Your task to perform on an android device: open app "Paramount+ | Peak Streaming" (install if not already installed) Image 0: 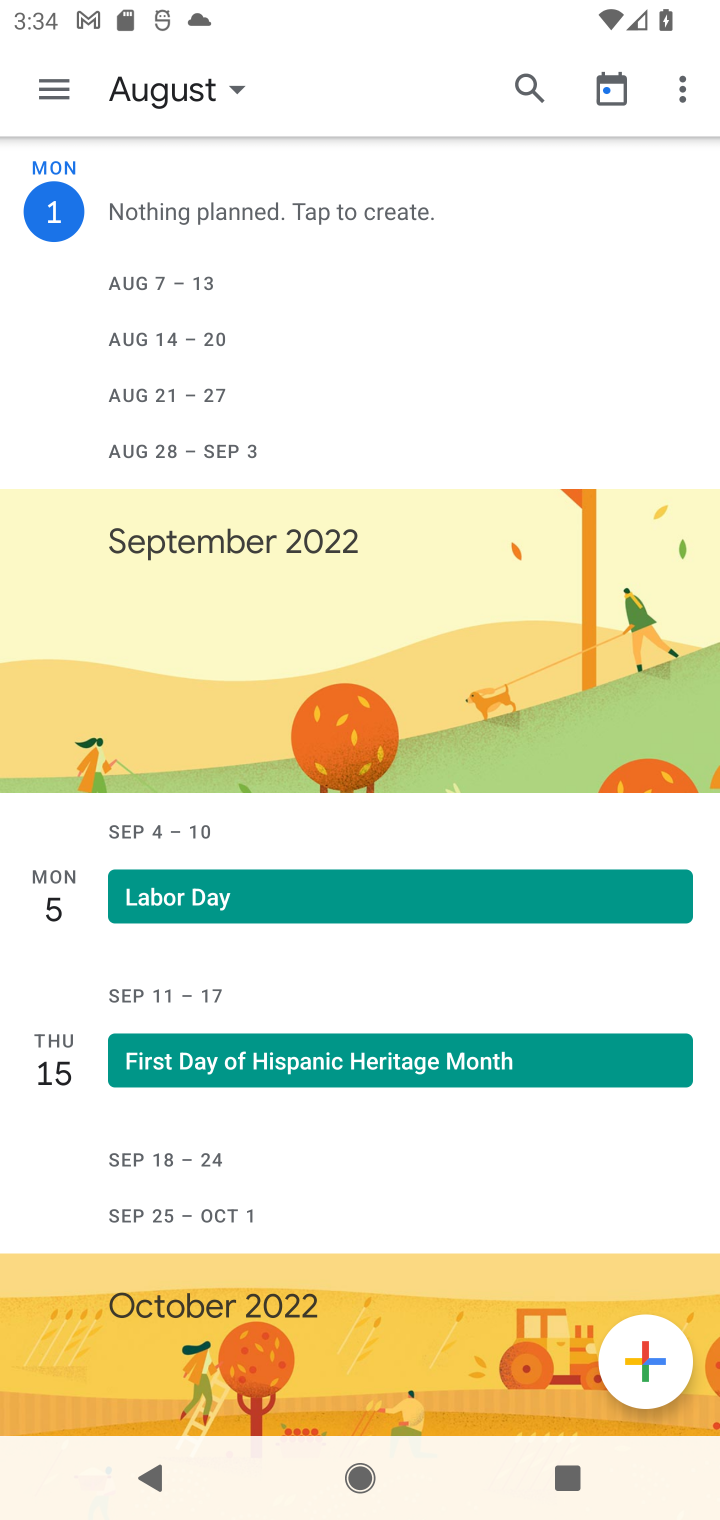
Step 0: press home button
Your task to perform on an android device: open app "Paramount+ | Peak Streaming" (install if not already installed) Image 1: 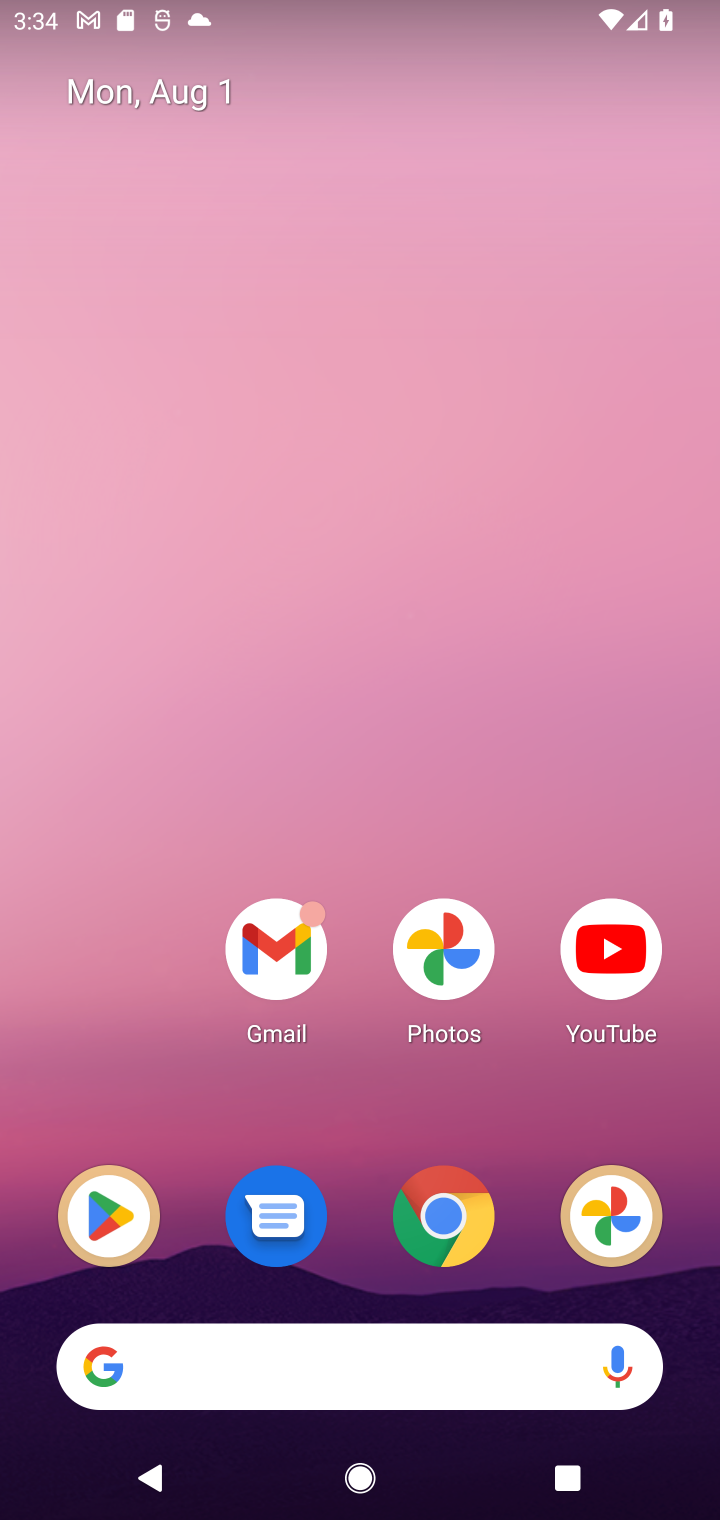
Step 1: drag from (569, 1374) to (470, 28)
Your task to perform on an android device: open app "Paramount+ | Peak Streaming" (install if not already installed) Image 2: 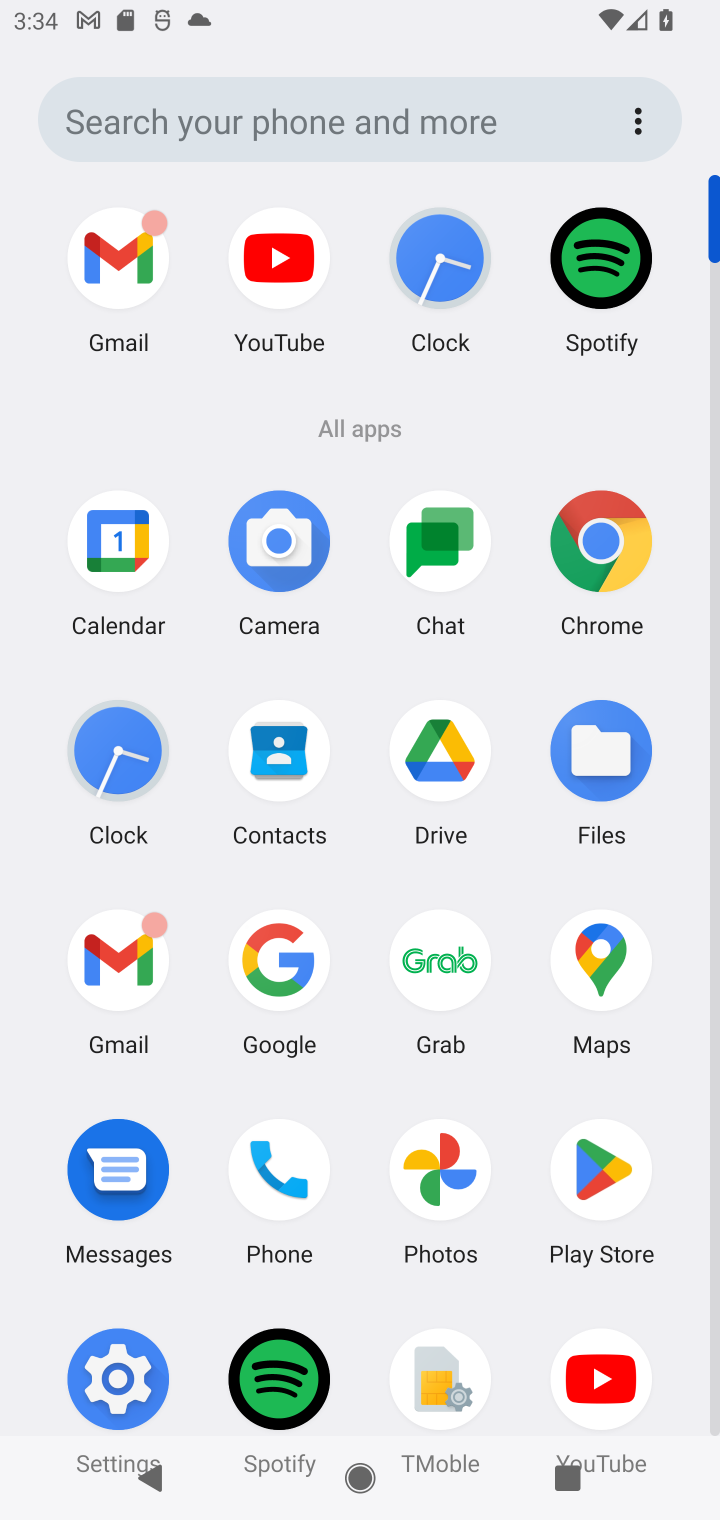
Step 2: click (575, 1164)
Your task to perform on an android device: open app "Paramount+ | Peak Streaming" (install if not already installed) Image 3: 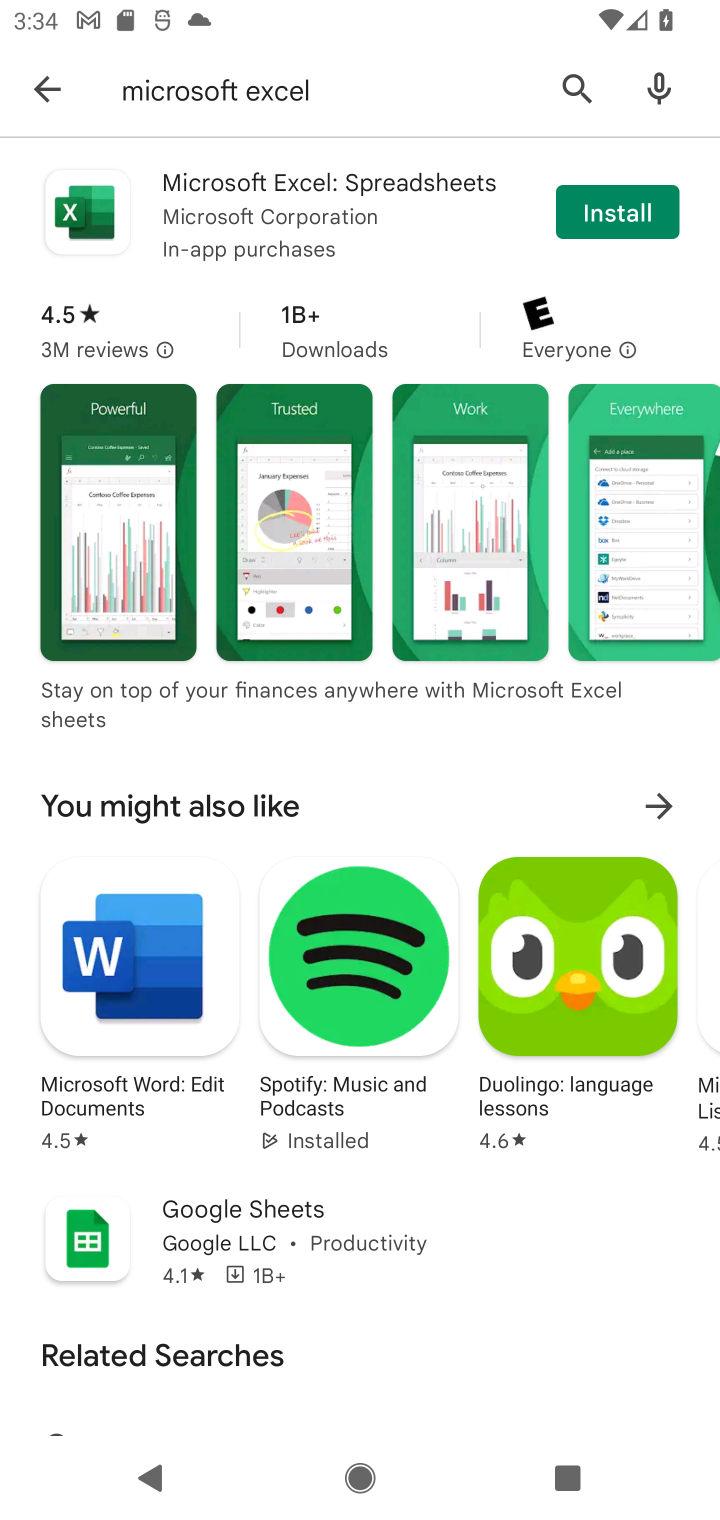
Step 3: click (568, 83)
Your task to perform on an android device: open app "Paramount+ | Peak Streaming" (install if not already installed) Image 4: 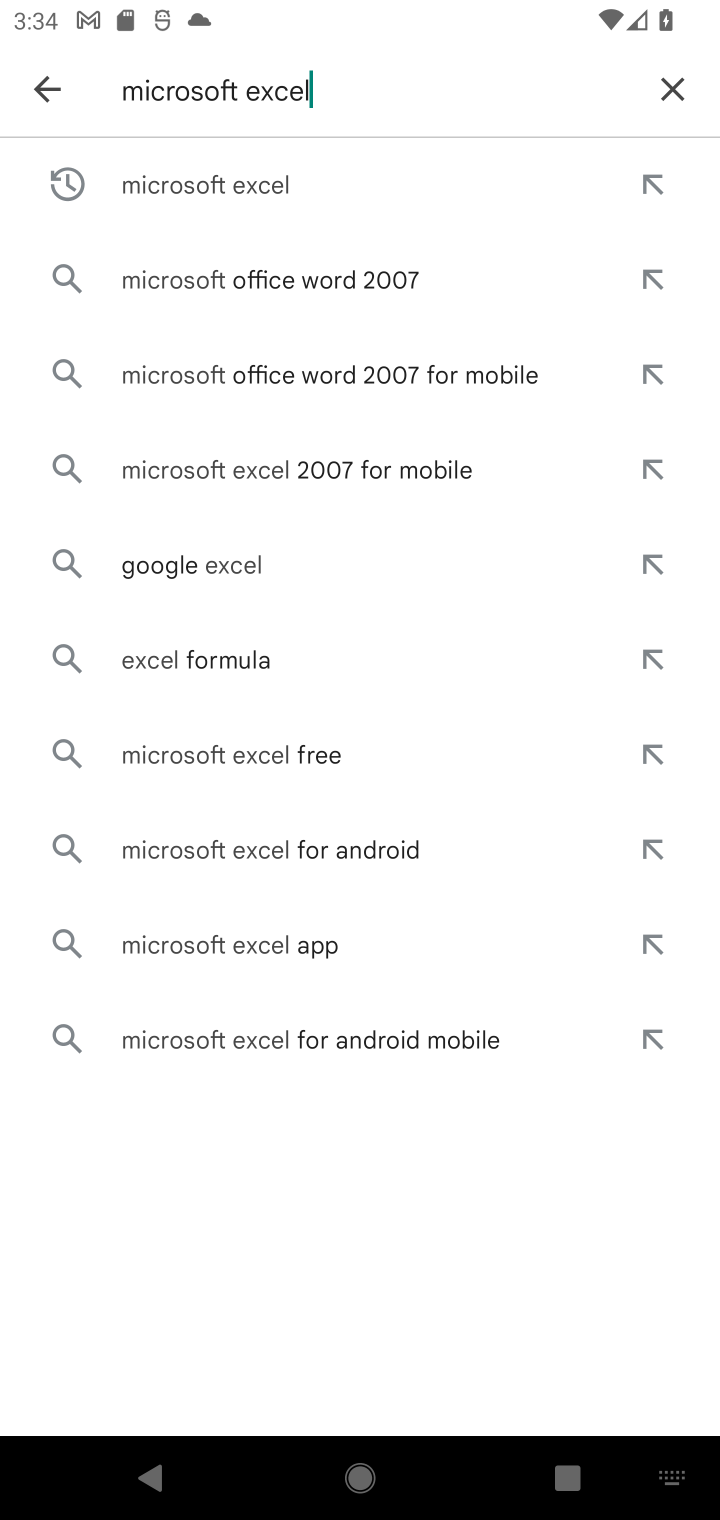
Step 4: click (669, 97)
Your task to perform on an android device: open app "Paramount+ | Peak Streaming" (install if not already installed) Image 5: 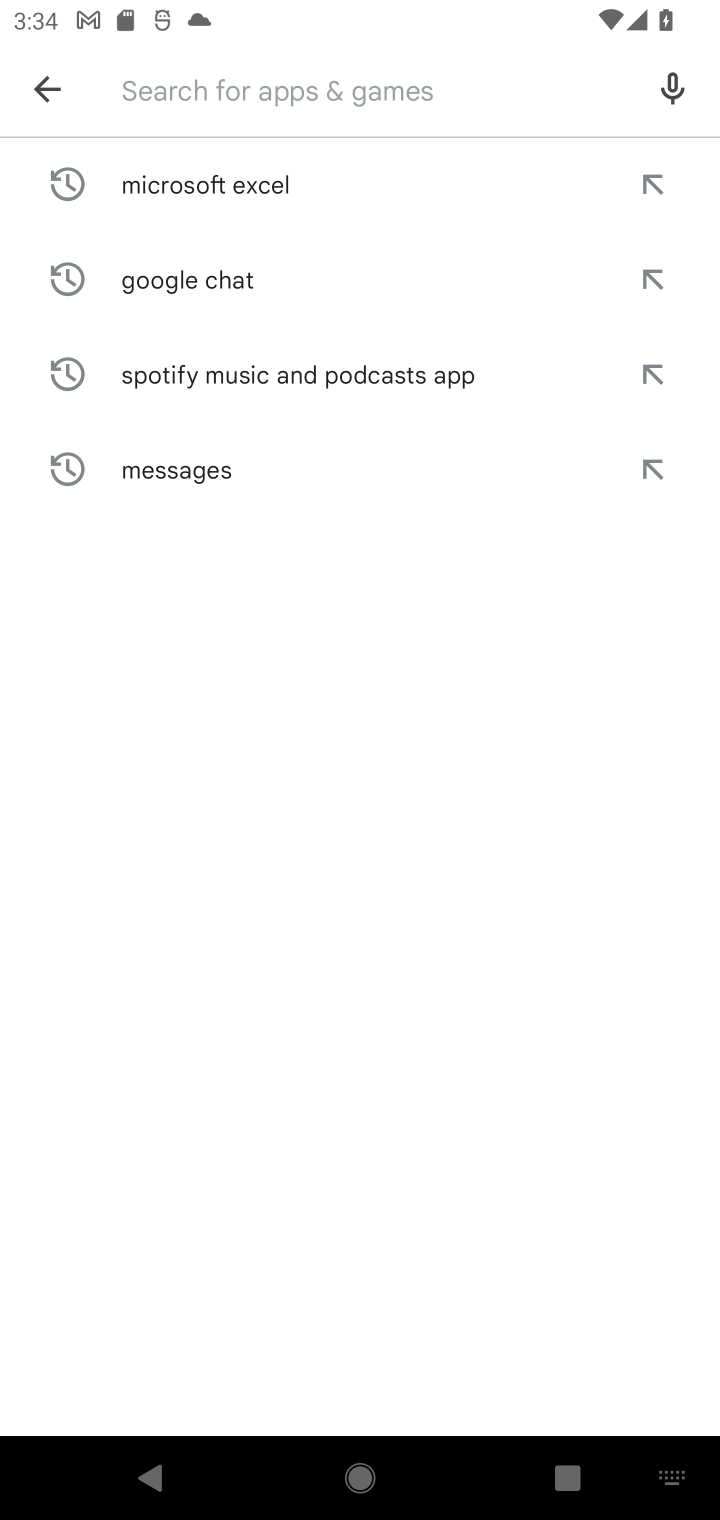
Step 5: type "paramount+ |"
Your task to perform on an android device: open app "Paramount+ | Peak Streaming" (install if not already installed) Image 6: 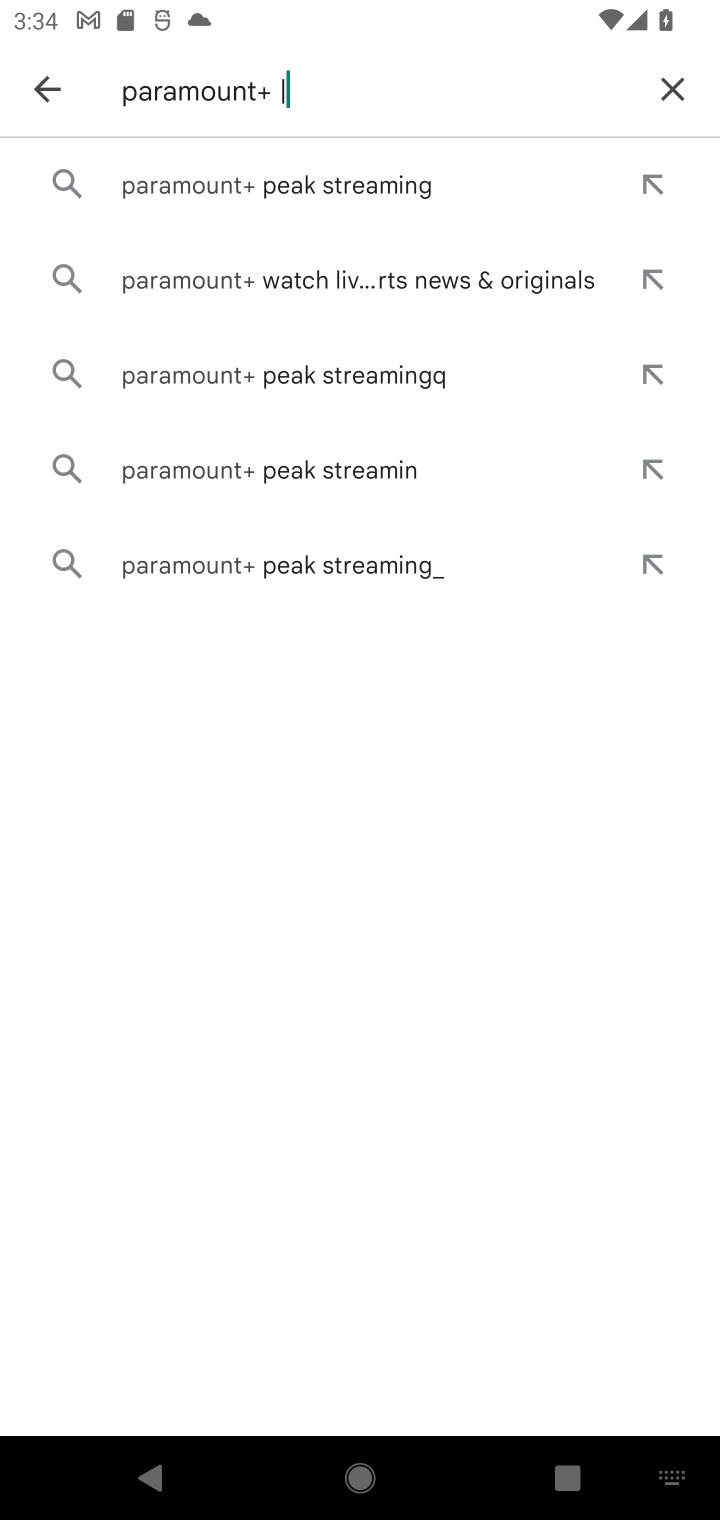
Step 6: click (349, 185)
Your task to perform on an android device: open app "Paramount+ | Peak Streaming" (install if not already installed) Image 7: 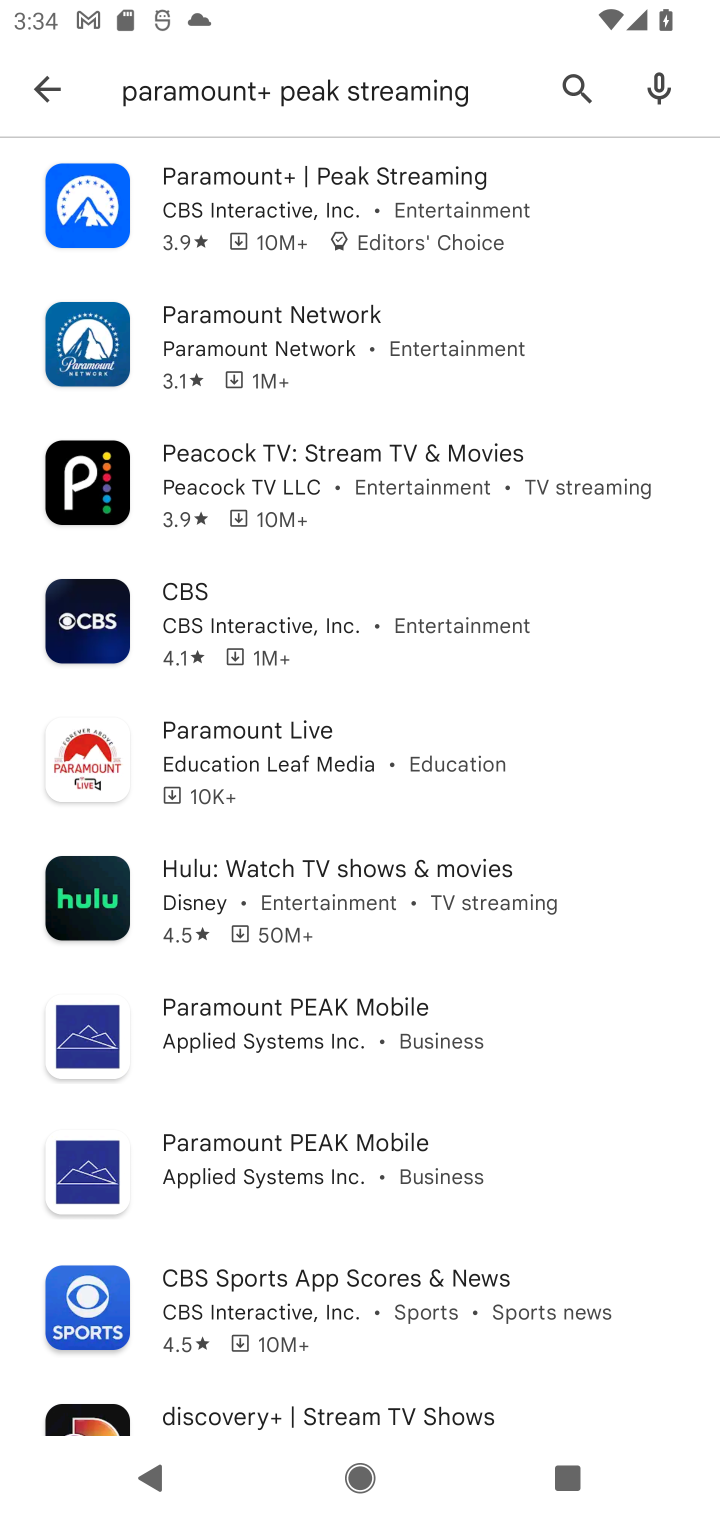
Step 7: click (311, 198)
Your task to perform on an android device: open app "Paramount+ | Peak Streaming" (install if not already installed) Image 8: 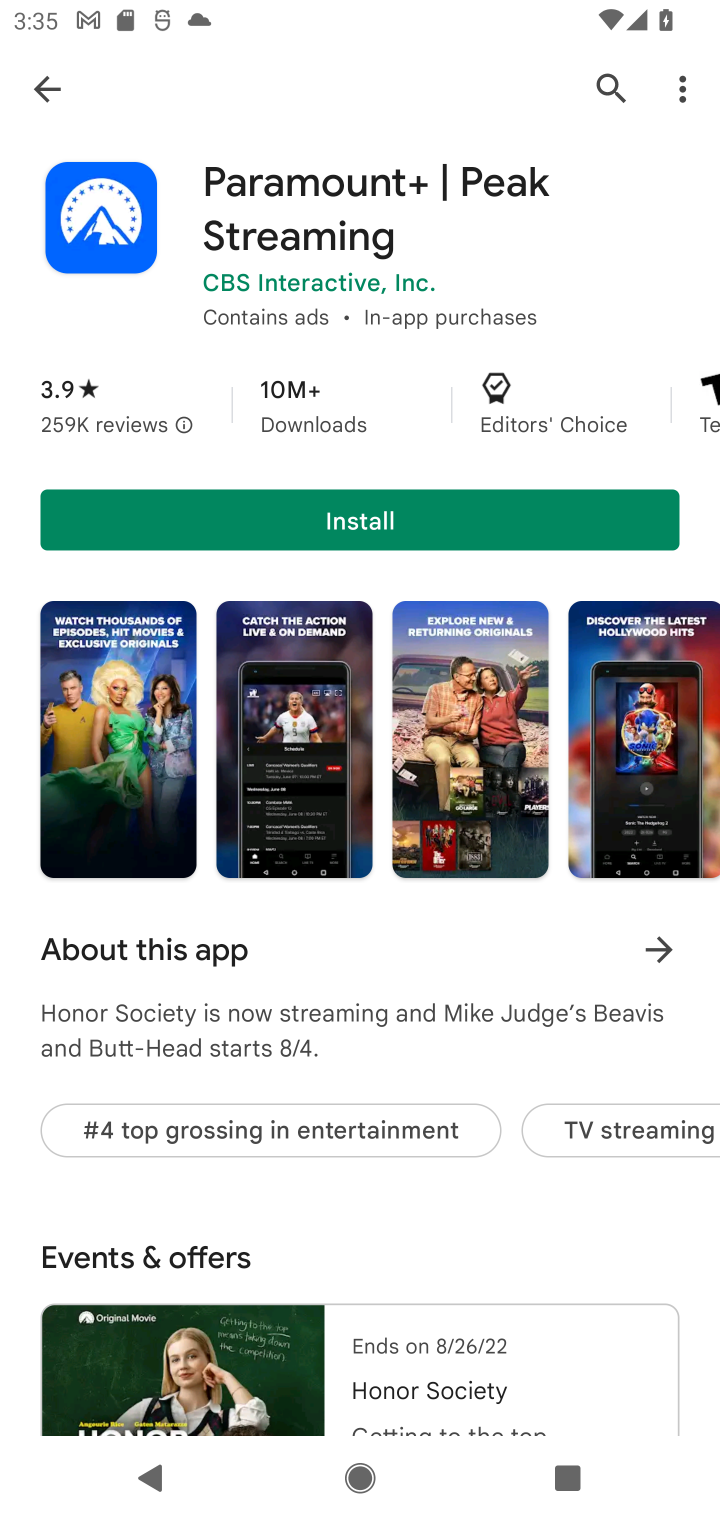
Step 8: click (303, 520)
Your task to perform on an android device: open app "Paramount+ | Peak Streaming" (install if not already installed) Image 9: 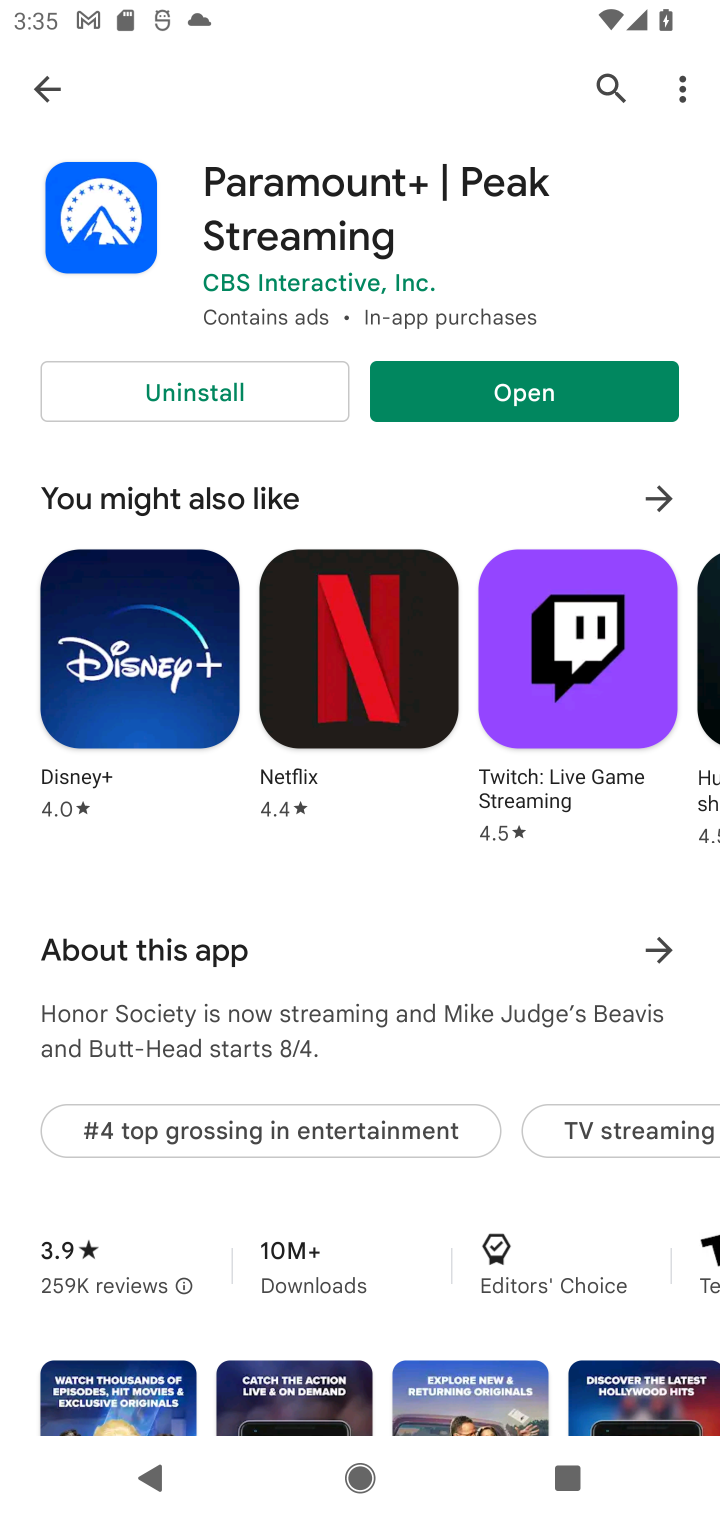
Step 9: task complete